Your task to perform on an android device: turn off priority inbox in the gmail app Image 0: 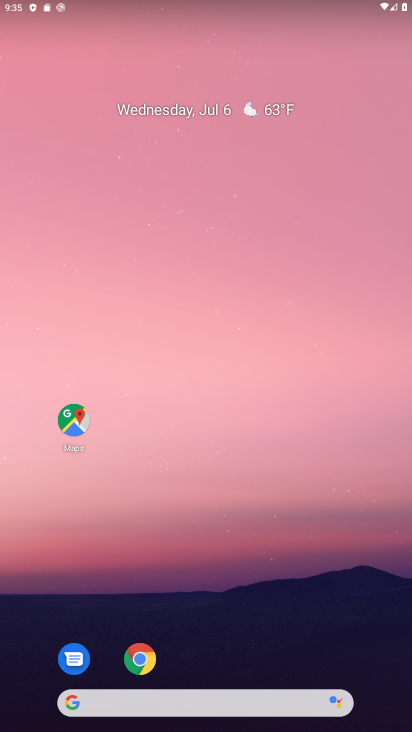
Step 0: drag from (195, 623) to (193, 295)
Your task to perform on an android device: turn off priority inbox in the gmail app Image 1: 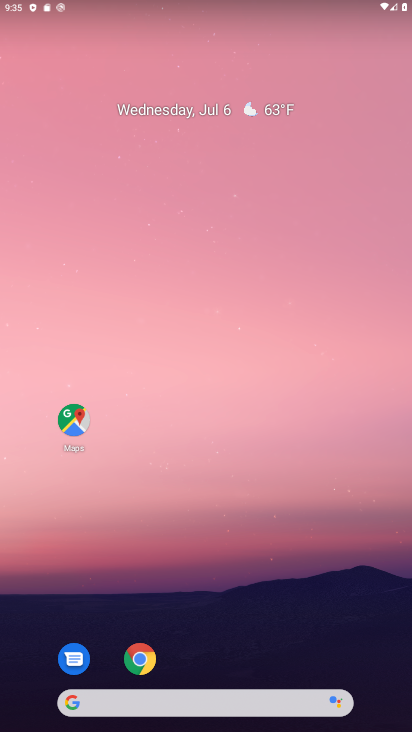
Step 1: drag from (194, 519) to (187, 305)
Your task to perform on an android device: turn off priority inbox in the gmail app Image 2: 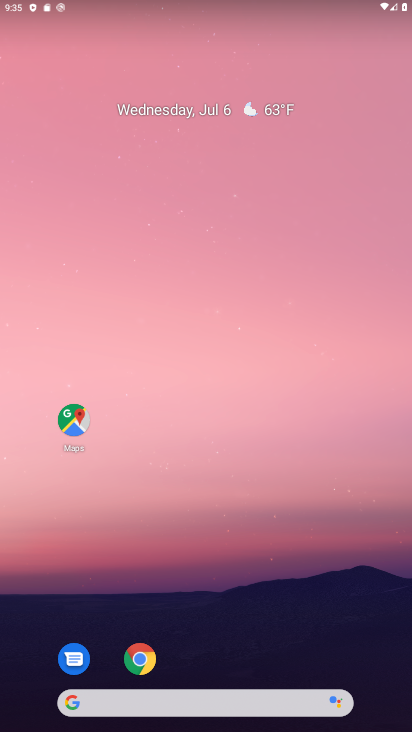
Step 2: drag from (172, 649) to (192, 366)
Your task to perform on an android device: turn off priority inbox in the gmail app Image 3: 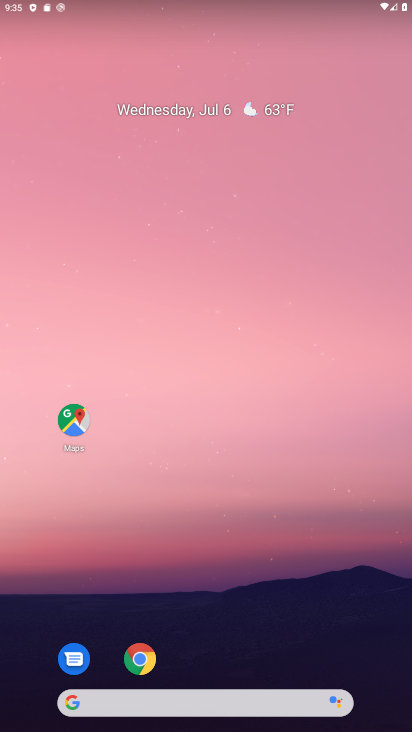
Step 3: drag from (253, 341) to (279, 234)
Your task to perform on an android device: turn off priority inbox in the gmail app Image 4: 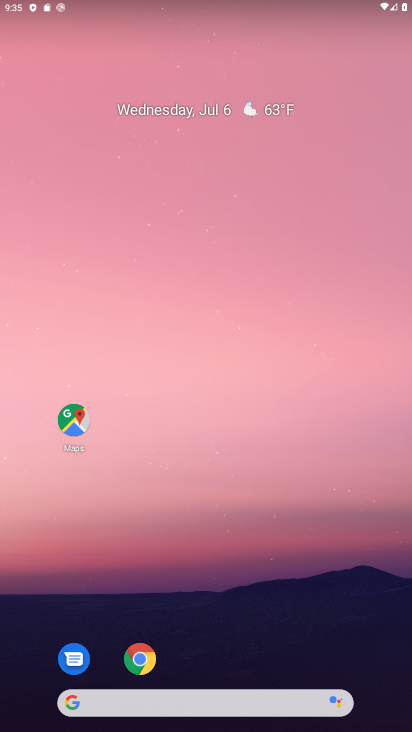
Step 4: drag from (202, 620) to (263, 388)
Your task to perform on an android device: turn off priority inbox in the gmail app Image 5: 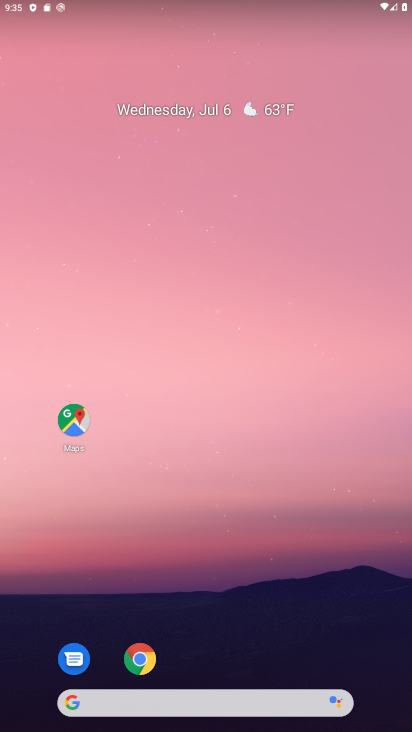
Step 5: drag from (200, 509) to (200, 277)
Your task to perform on an android device: turn off priority inbox in the gmail app Image 6: 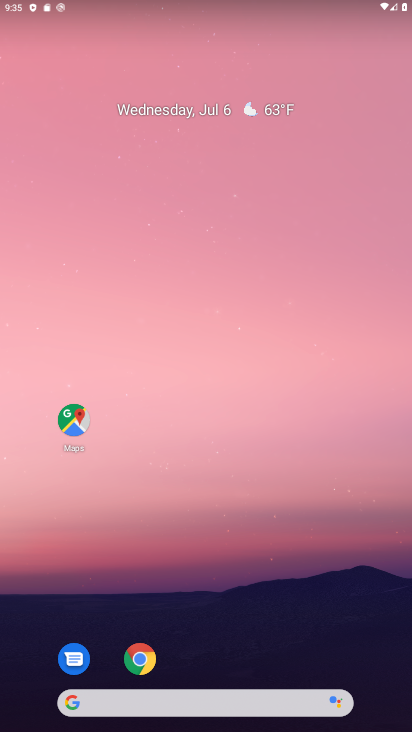
Step 6: drag from (188, 478) to (223, 22)
Your task to perform on an android device: turn off priority inbox in the gmail app Image 7: 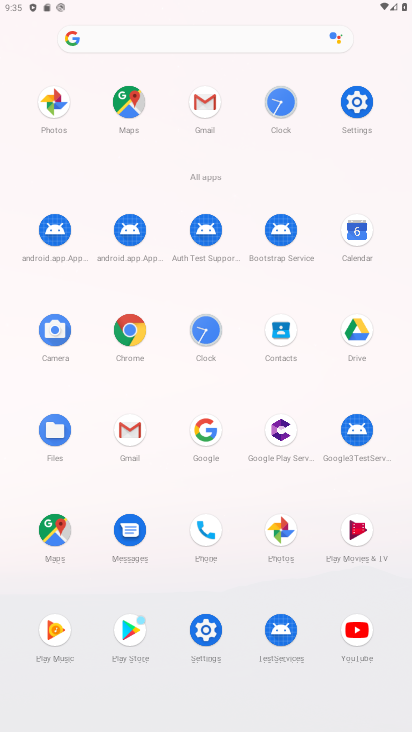
Step 7: click (198, 94)
Your task to perform on an android device: turn off priority inbox in the gmail app Image 8: 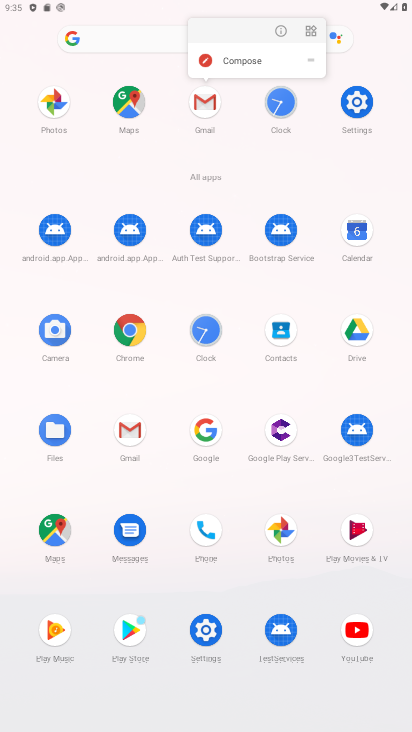
Step 8: click (278, 31)
Your task to perform on an android device: turn off priority inbox in the gmail app Image 9: 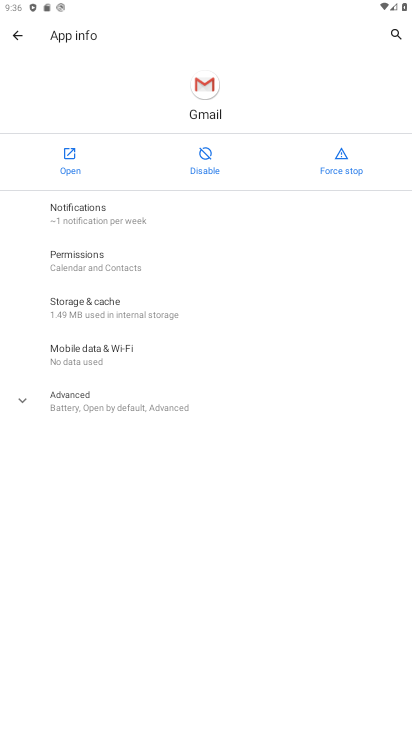
Step 9: click (63, 162)
Your task to perform on an android device: turn off priority inbox in the gmail app Image 10: 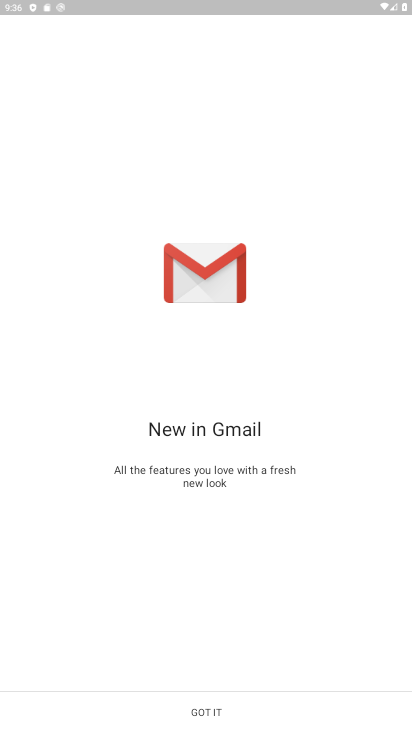
Step 10: click (199, 717)
Your task to perform on an android device: turn off priority inbox in the gmail app Image 11: 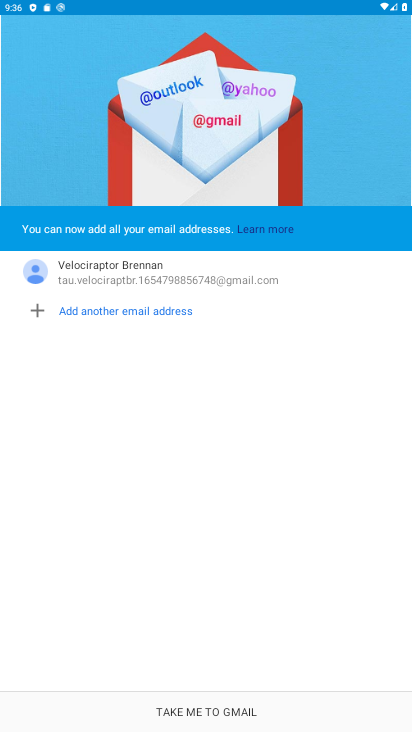
Step 11: click (210, 693)
Your task to perform on an android device: turn off priority inbox in the gmail app Image 12: 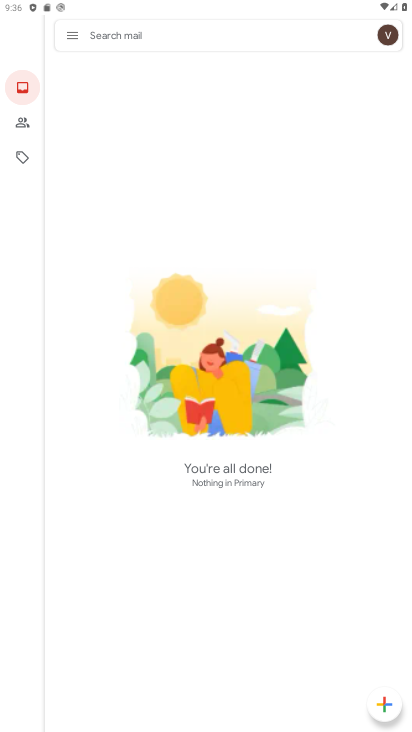
Step 12: click (45, 22)
Your task to perform on an android device: turn off priority inbox in the gmail app Image 13: 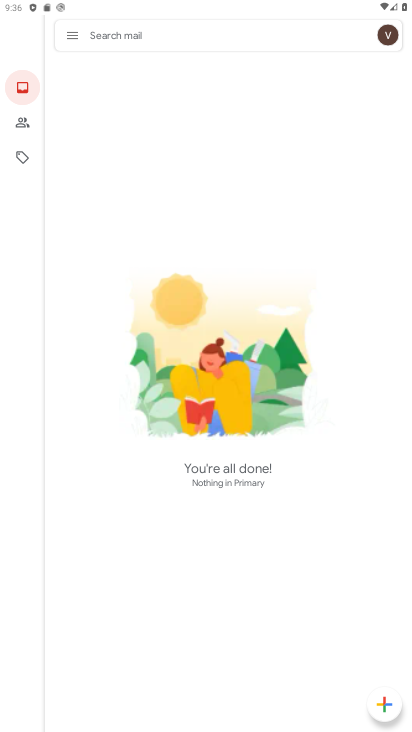
Step 13: click (61, 35)
Your task to perform on an android device: turn off priority inbox in the gmail app Image 14: 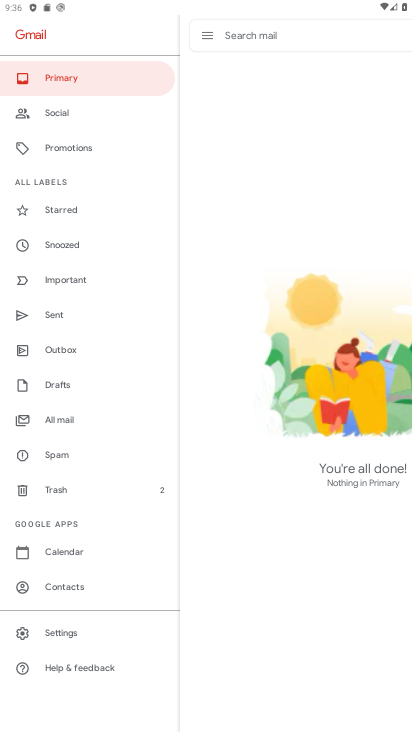
Step 14: click (315, 384)
Your task to perform on an android device: turn off priority inbox in the gmail app Image 15: 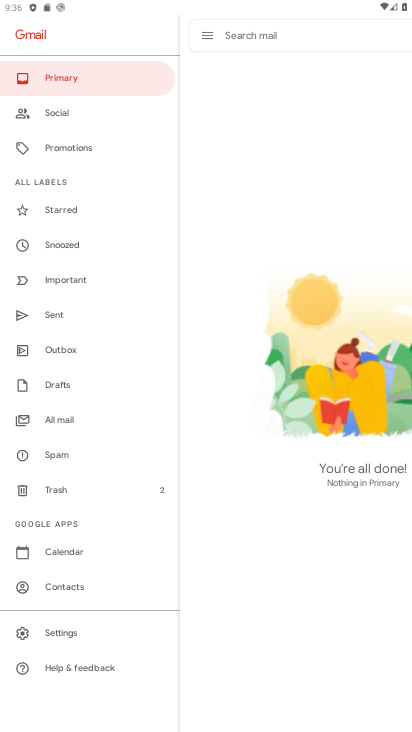
Step 15: click (214, 30)
Your task to perform on an android device: turn off priority inbox in the gmail app Image 16: 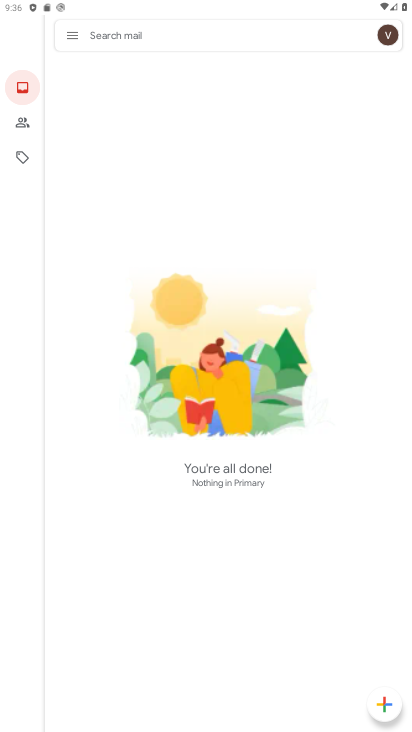
Step 16: click (66, 47)
Your task to perform on an android device: turn off priority inbox in the gmail app Image 17: 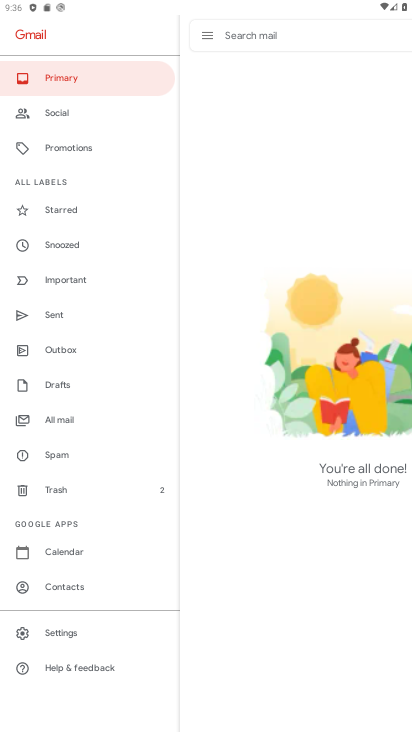
Step 17: click (55, 635)
Your task to perform on an android device: turn off priority inbox in the gmail app Image 18: 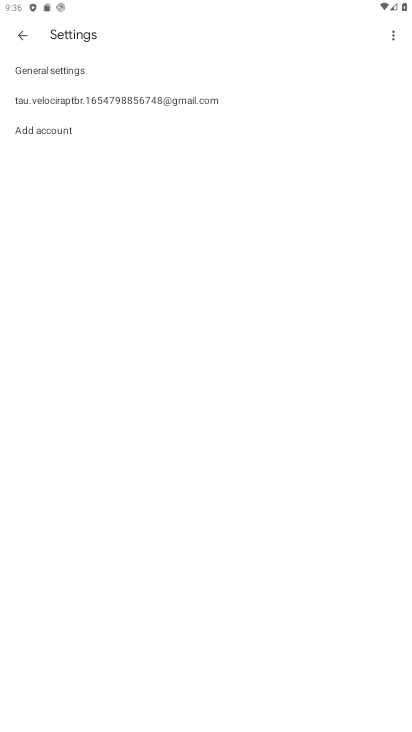
Step 18: click (140, 109)
Your task to perform on an android device: turn off priority inbox in the gmail app Image 19: 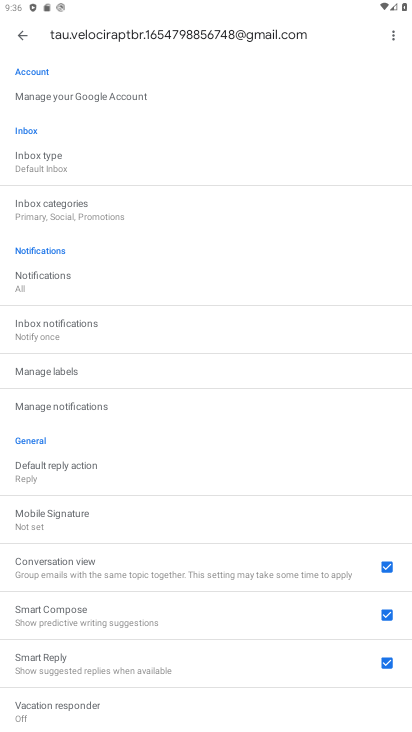
Step 19: click (111, 155)
Your task to perform on an android device: turn off priority inbox in the gmail app Image 20: 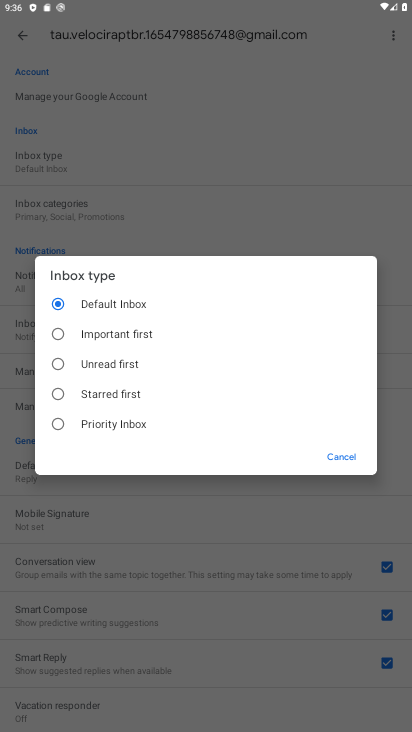
Step 20: click (106, 334)
Your task to perform on an android device: turn off priority inbox in the gmail app Image 21: 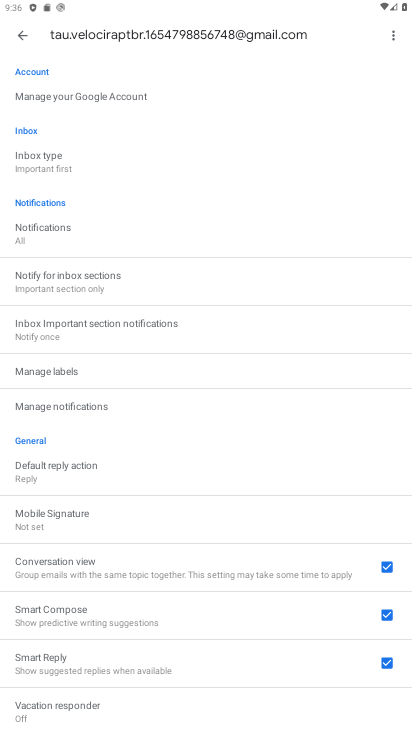
Step 21: task complete